Your task to perform on an android device: open a new tab in the chrome app Image 0: 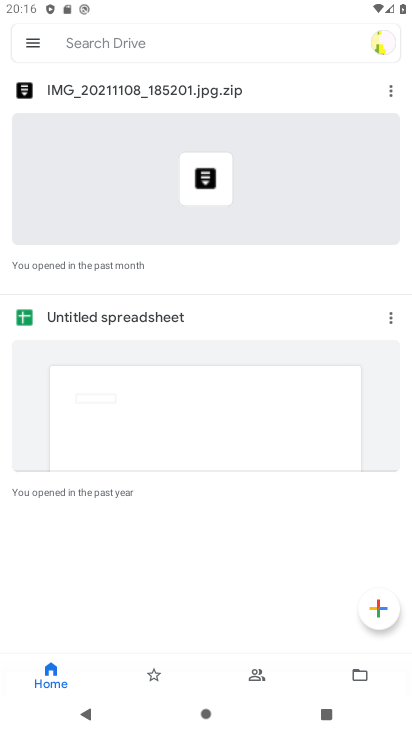
Step 0: press home button
Your task to perform on an android device: open a new tab in the chrome app Image 1: 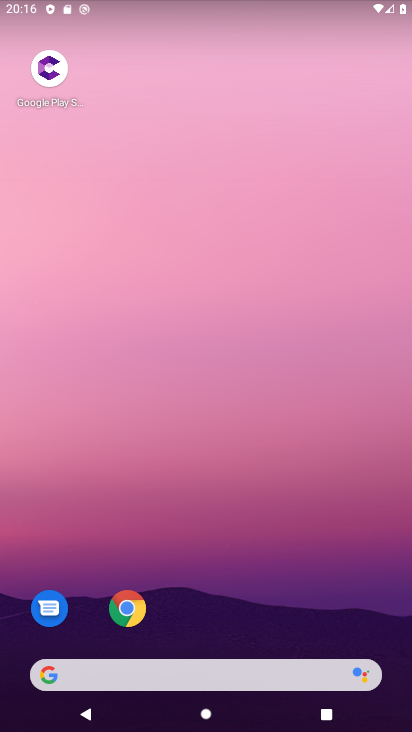
Step 1: click (126, 607)
Your task to perform on an android device: open a new tab in the chrome app Image 2: 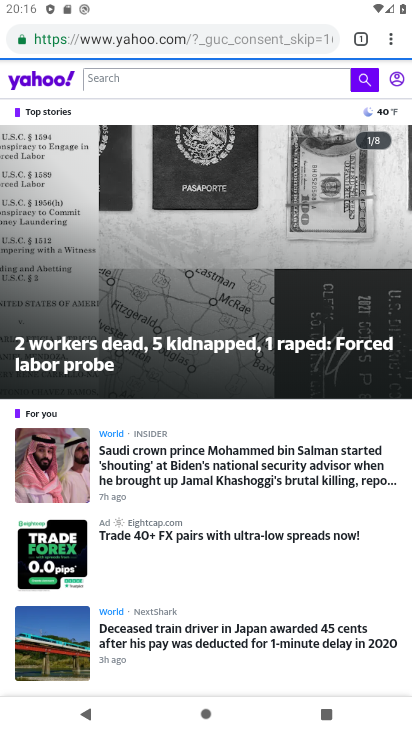
Step 2: click (393, 39)
Your task to perform on an android device: open a new tab in the chrome app Image 3: 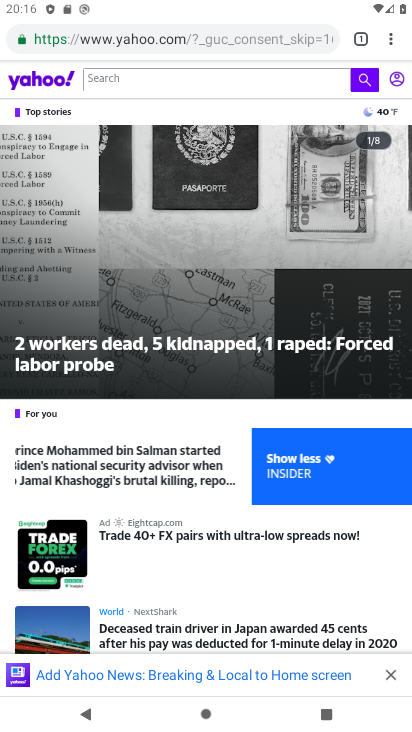
Step 3: click (393, 39)
Your task to perform on an android device: open a new tab in the chrome app Image 4: 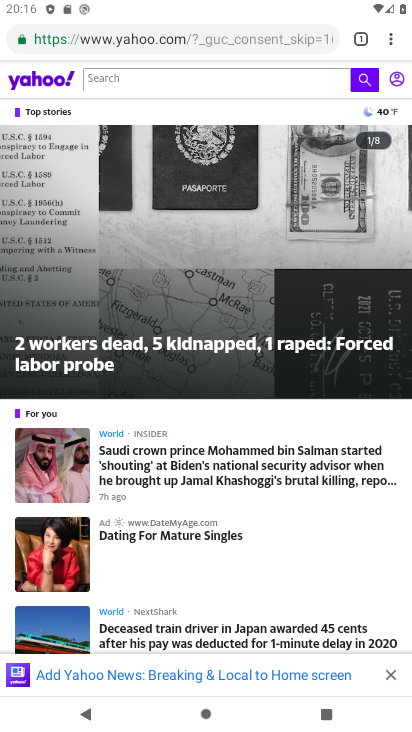
Step 4: click (398, 41)
Your task to perform on an android device: open a new tab in the chrome app Image 5: 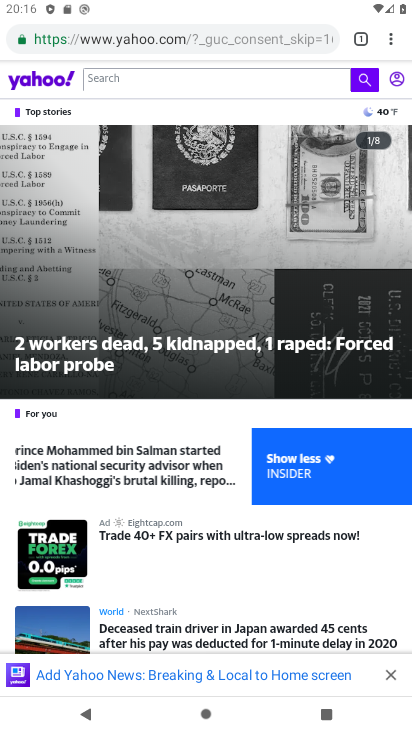
Step 5: click (385, 38)
Your task to perform on an android device: open a new tab in the chrome app Image 6: 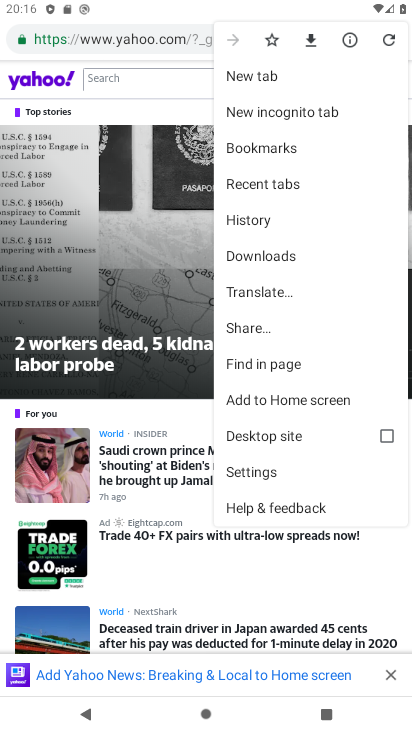
Step 6: click (268, 75)
Your task to perform on an android device: open a new tab in the chrome app Image 7: 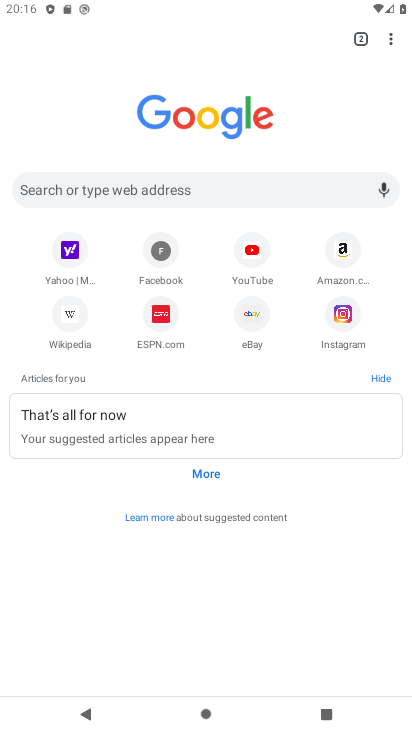
Step 7: task complete